Your task to perform on an android device: turn off notifications in google photos Image 0: 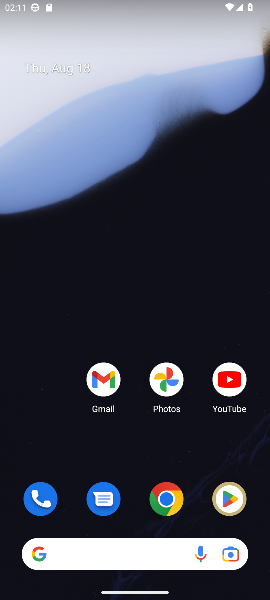
Step 0: click (164, 382)
Your task to perform on an android device: turn off notifications in google photos Image 1: 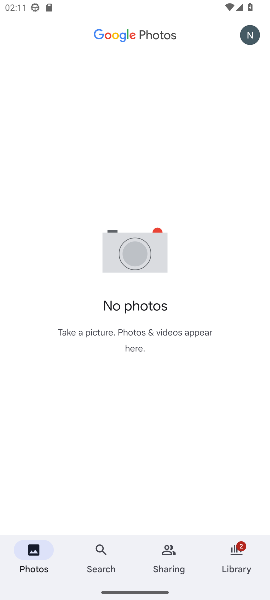
Step 1: click (250, 30)
Your task to perform on an android device: turn off notifications in google photos Image 2: 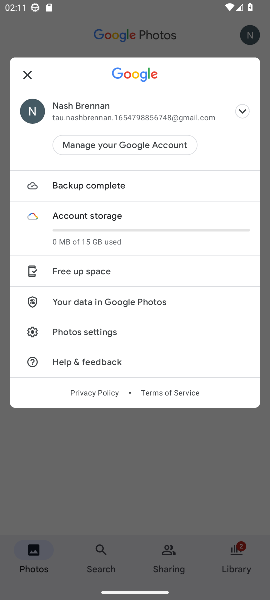
Step 2: click (87, 331)
Your task to perform on an android device: turn off notifications in google photos Image 3: 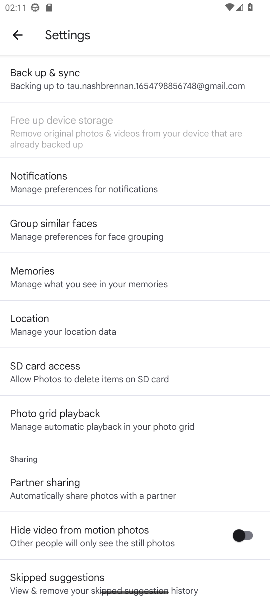
Step 3: click (29, 180)
Your task to perform on an android device: turn off notifications in google photos Image 4: 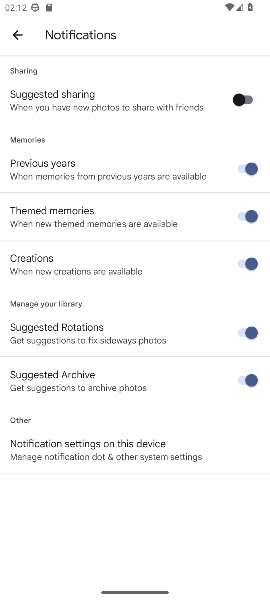
Step 4: drag from (75, 135) to (114, 427)
Your task to perform on an android device: turn off notifications in google photos Image 5: 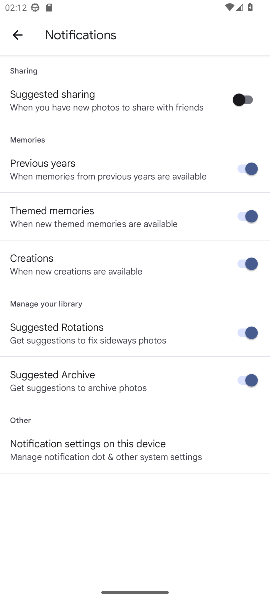
Step 5: click (95, 439)
Your task to perform on an android device: turn off notifications in google photos Image 6: 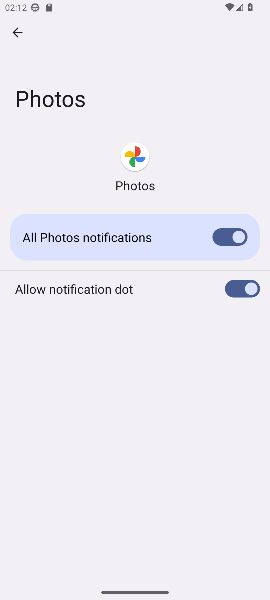
Step 6: click (222, 235)
Your task to perform on an android device: turn off notifications in google photos Image 7: 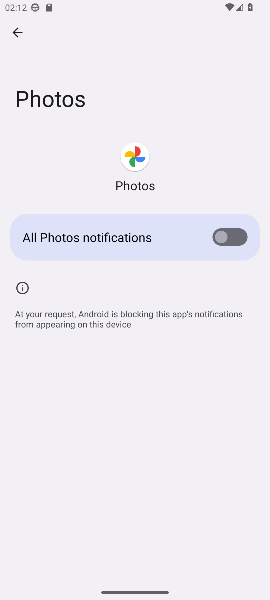
Step 7: task complete